Your task to perform on an android device: stop showing notifications on the lock screen Image 0: 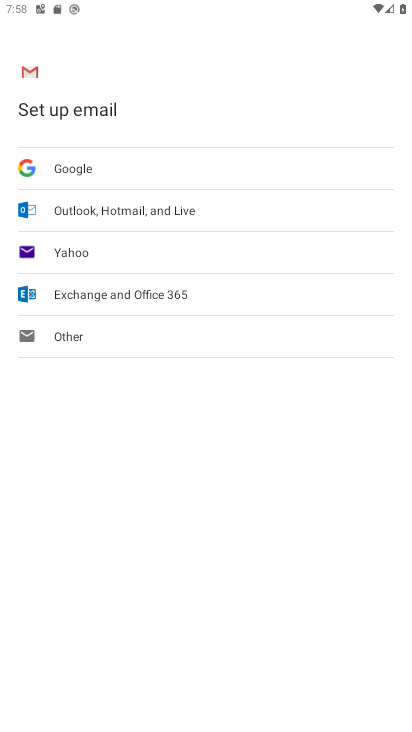
Step 0: press home button
Your task to perform on an android device: stop showing notifications on the lock screen Image 1: 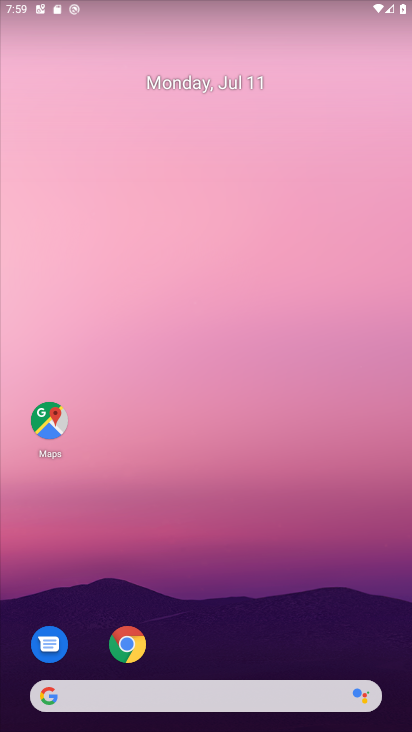
Step 1: drag from (209, 654) to (308, 13)
Your task to perform on an android device: stop showing notifications on the lock screen Image 2: 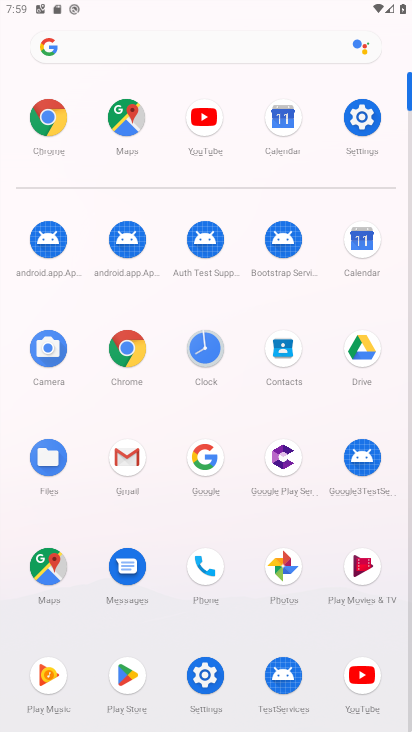
Step 2: click (371, 112)
Your task to perform on an android device: stop showing notifications on the lock screen Image 3: 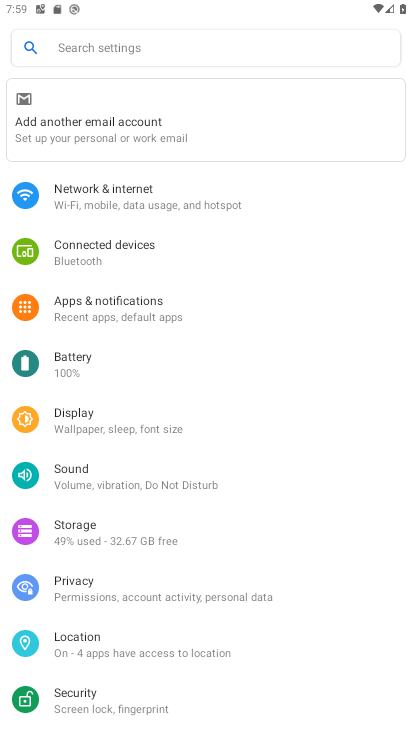
Step 3: click (125, 298)
Your task to perform on an android device: stop showing notifications on the lock screen Image 4: 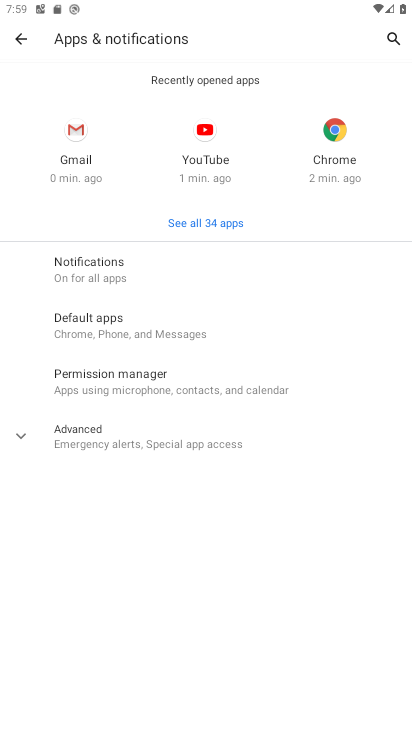
Step 4: click (117, 280)
Your task to perform on an android device: stop showing notifications on the lock screen Image 5: 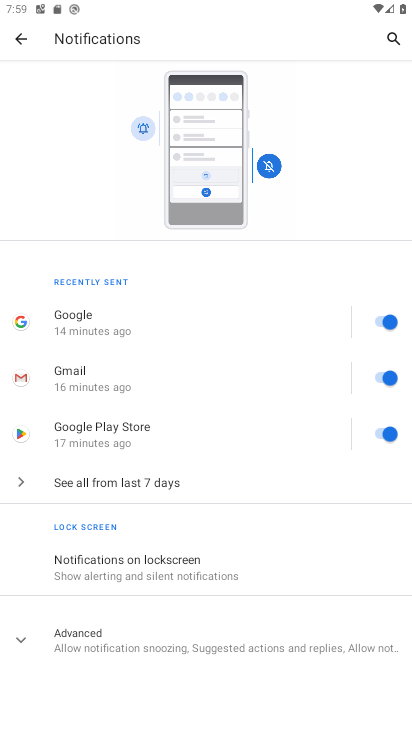
Step 5: click (148, 560)
Your task to perform on an android device: stop showing notifications on the lock screen Image 6: 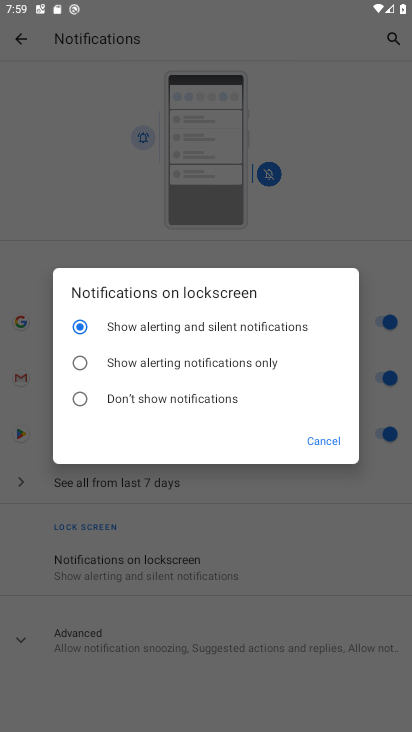
Step 6: click (192, 404)
Your task to perform on an android device: stop showing notifications on the lock screen Image 7: 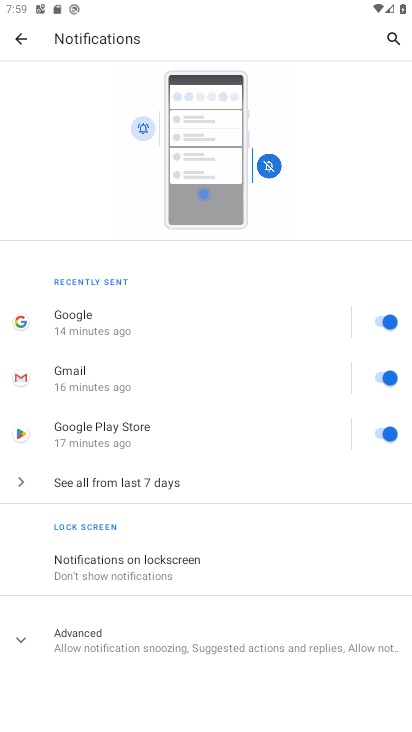
Step 7: task complete